Your task to perform on an android device: Go to Google Image 0: 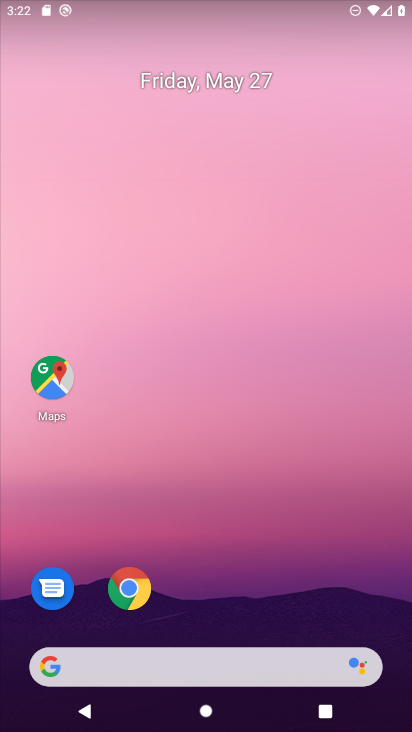
Step 0: drag from (229, 589) to (205, 1)
Your task to perform on an android device: Go to Google Image 1: 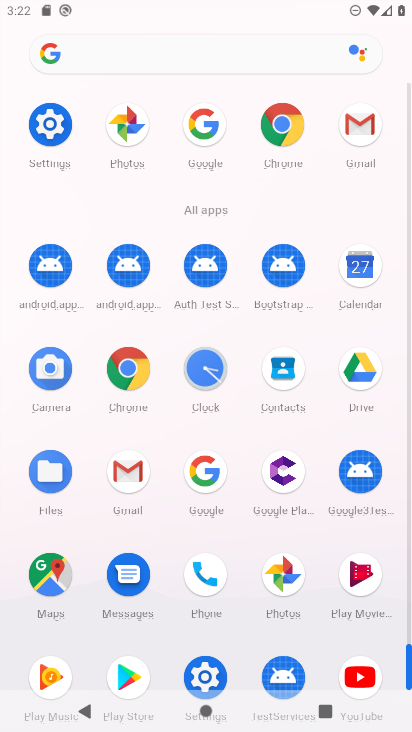
Step 1: click (195, 505)
Your task to perform on an android device: Go to Google Image 2: 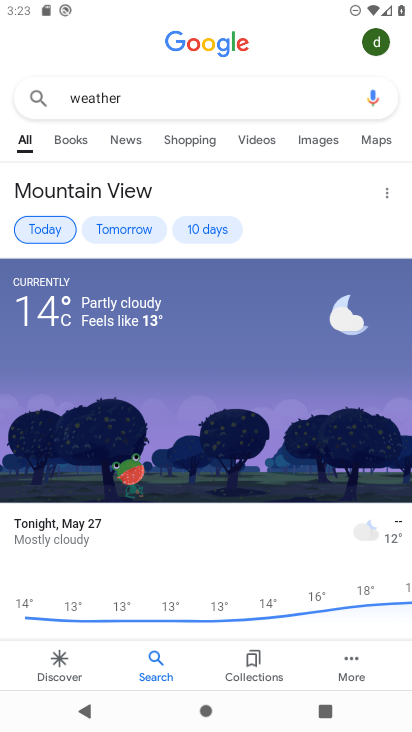
Step 2: task complete